Your task to perform on an android device: turn on javascript in the chrome app Image 0: 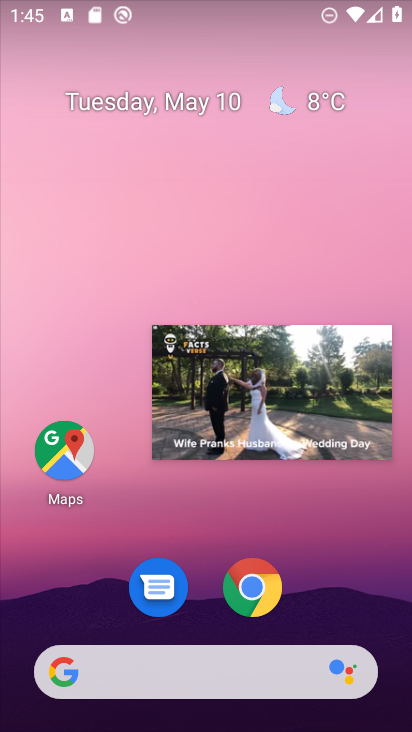
Step 0: click (248, 576)
Your task to perform on an android device: turn on javascript in the chrome app Image 1: 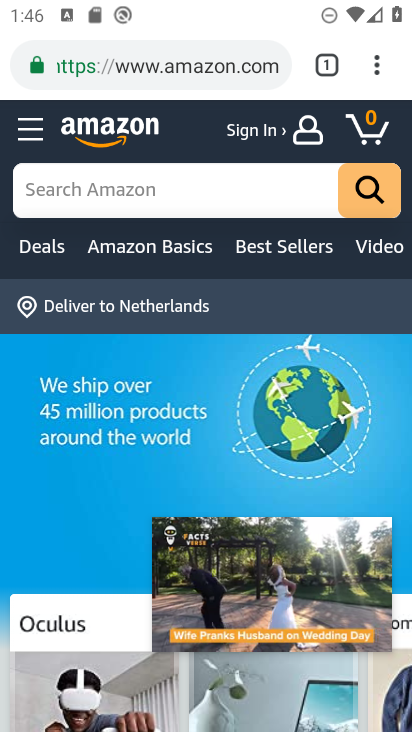
Step 1: click (377, 54)
Your task to perform on an android device: turn on javascript in the chrome app Image 2: 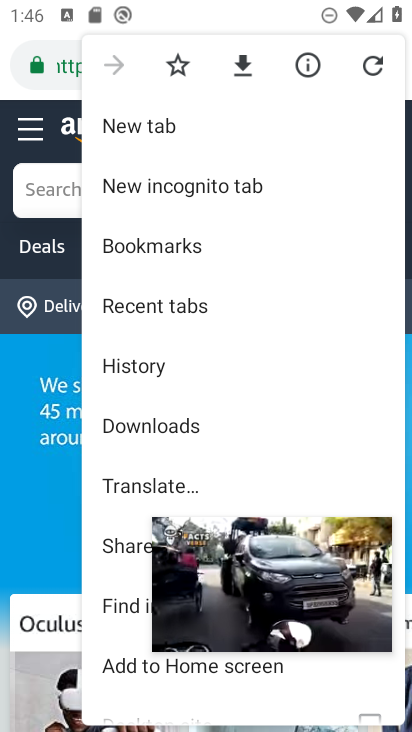
Step 2: drag from (101, 658) to (163, 330)
Your task to perform on an android device: turn on javascript in the chrome app Image 3: 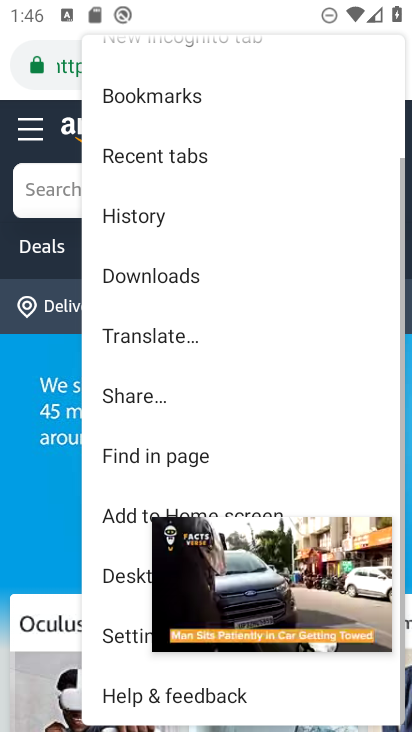
Step 3: click (118, 372)
Your task to perform on an android device: turn on javascript in the chrome app Image 4: 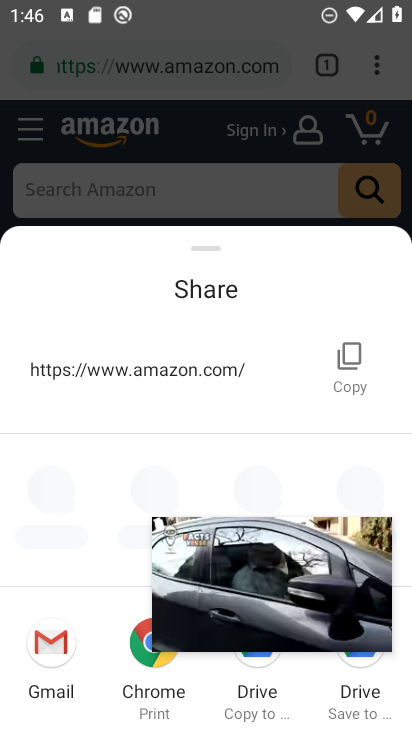
Step 4: press back button
Your task to perform on an android device: turn on javascript in the chrome app Image 5: 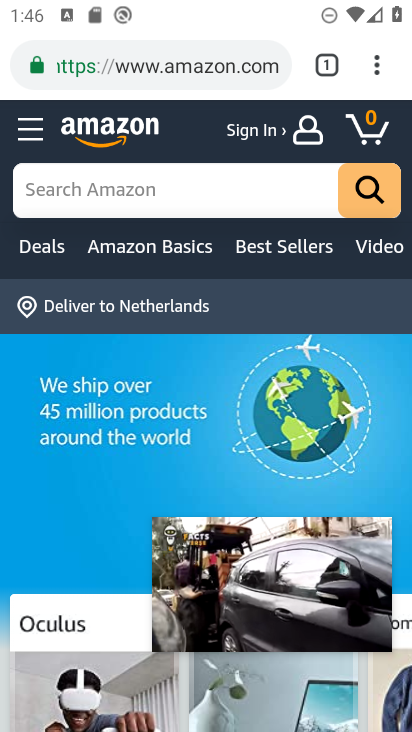
Step 5: click (380, 61)
Your task to perform on an android device: turn on javascript in the chrome app Image 6: 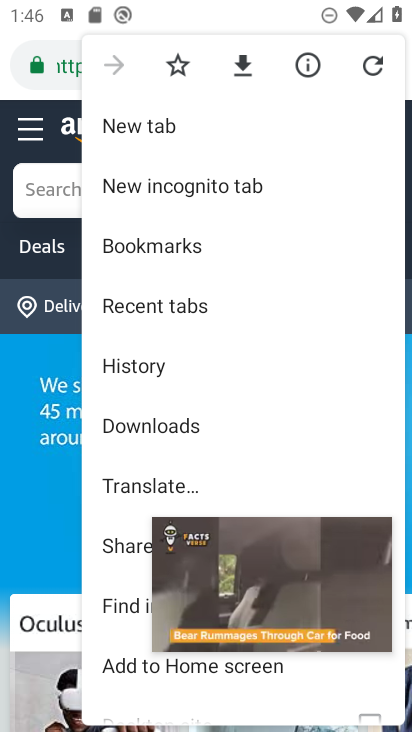
Step 6: drag from (108, 607) to (94, 325)
Your task to perform on an android device: turn on javascript in the chrome app Image 7: 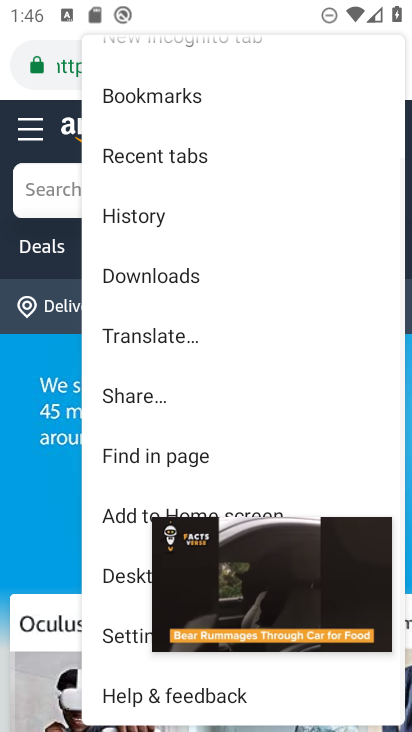
Step 7: click (111, 640)
Your task to perform on an android device: turn on javascript in the chrome app Image 8: 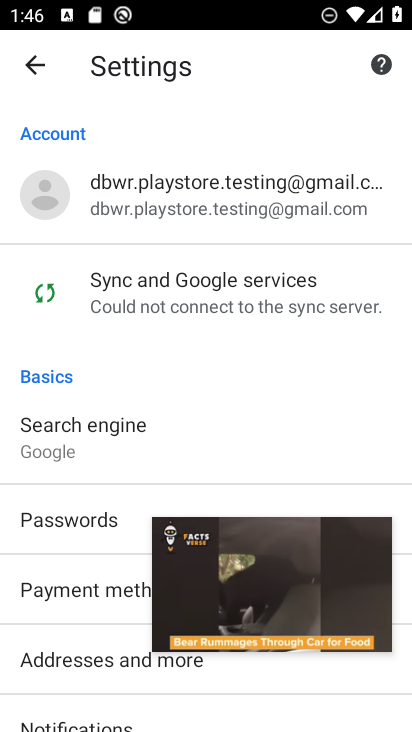
Step 8: drag from (97, 586) to (86, 321)
Your task to perform on an android device: turn on javascript in the chrome app Image 9: 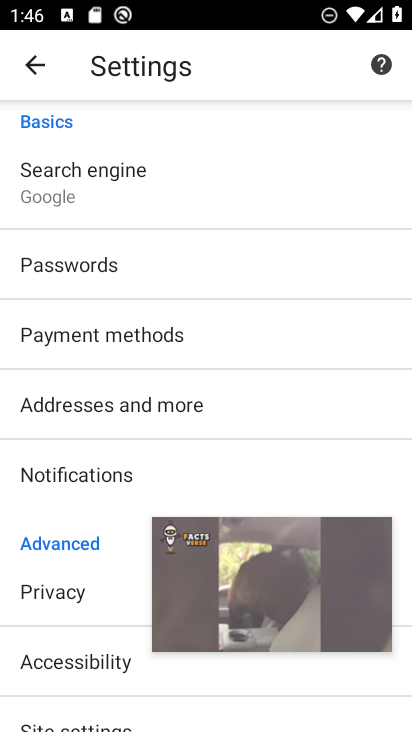
Step 9: drag from (106, 584) to (101, 338)
Your task to perform on an android device: turn on javascript in the chrome app Image 10: 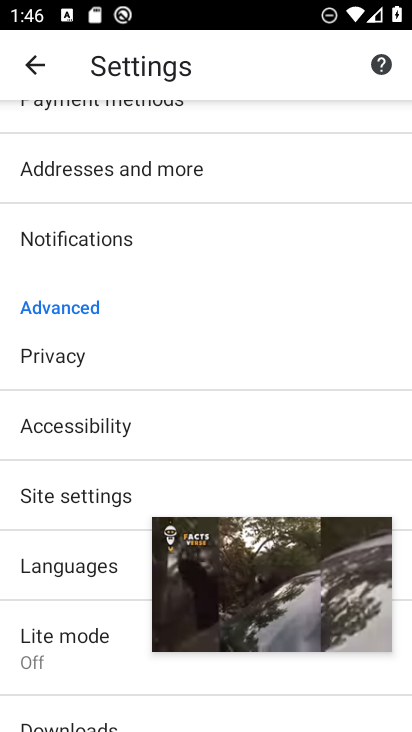
Step 10: click (66, 492)
Your task to perform on an android device: turn on javascript in the chrome app Image 11: 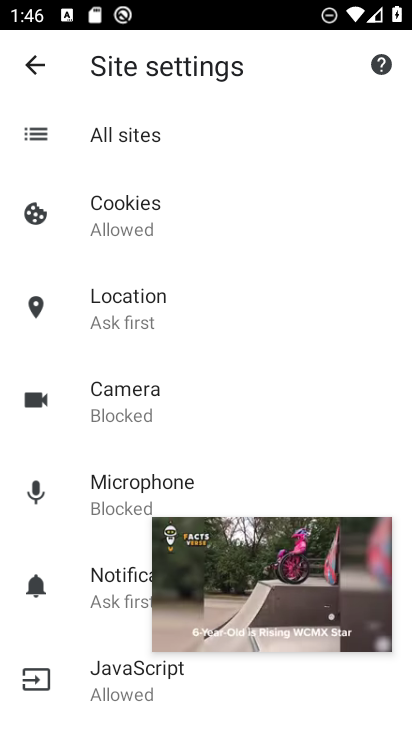
Step 11: drag from (301, 449) to (282, 243)
Your task to perform on an android device: turn on javascript in the chrome app Image 12: 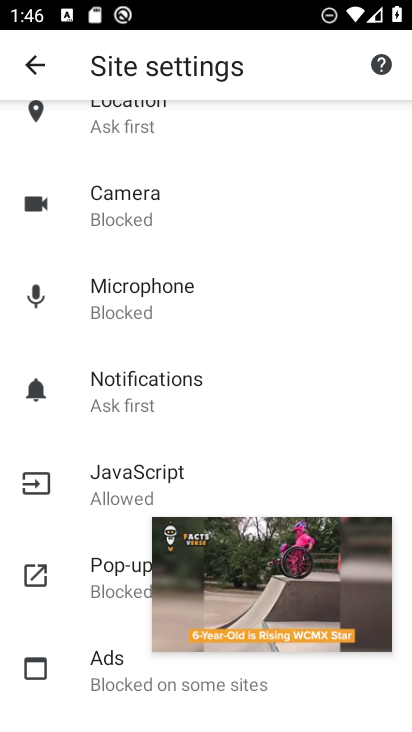
Step 12: click (115, 470)
Your task to perform on an android device: turn on javascript in the chrome app Image 13: 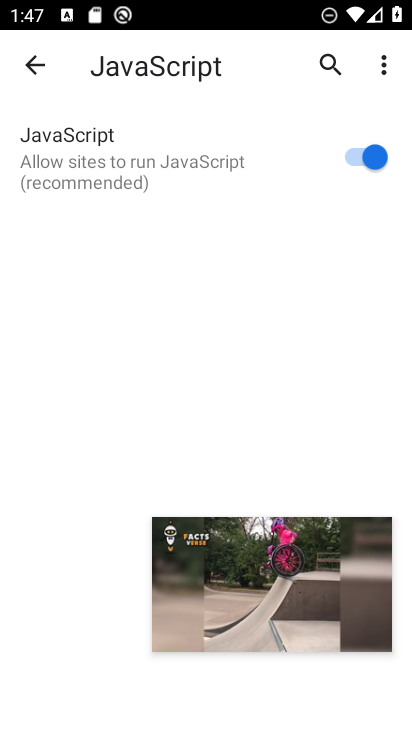
Step 13: task complete